Your task to perform on an android device: empty trash in google photos Image 0: 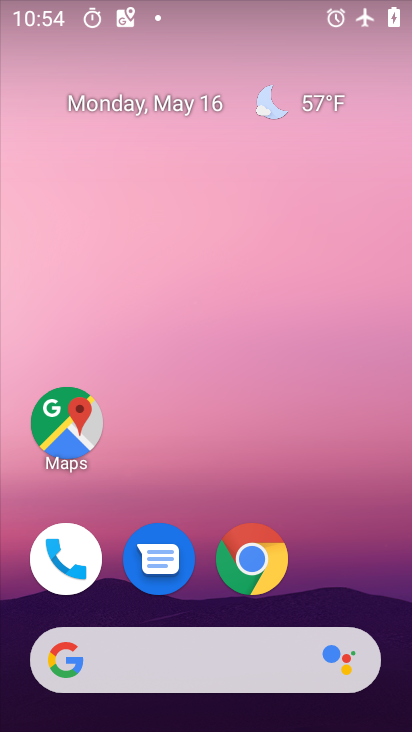
Step 0: drag from (325, 563) to (322, 143)
Your task to perform on an android device: empty trash in google photos Image 1: 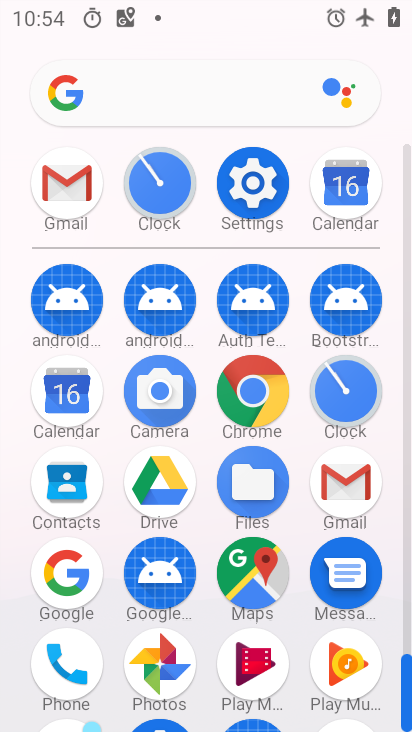
Step 1: click (166, 649)
Your task to perform on an android device: empty trash in google photos Image 2: 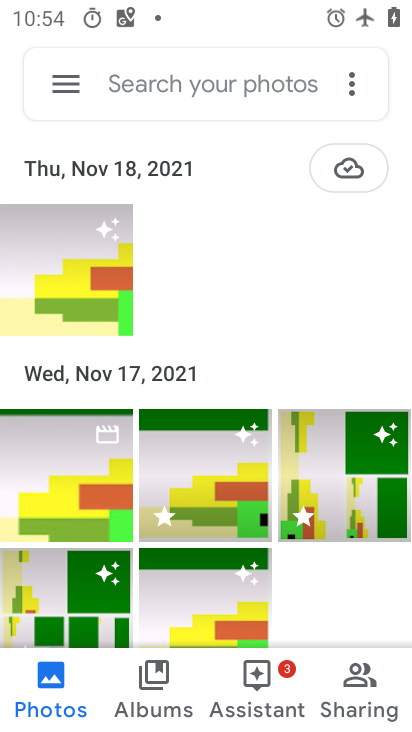
Step 2: click (75, 84)
Your task to perform on an android device: empty trash in google photos Image 3: 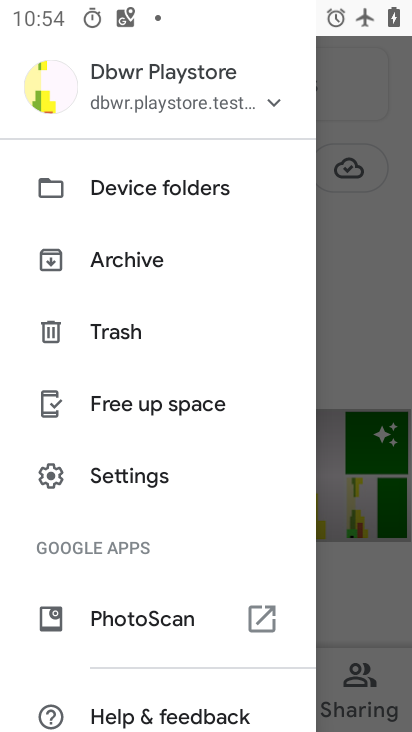
Step 3: click (127, 334)
Your task to perform on an android device: empty trash in google photos Image 4: 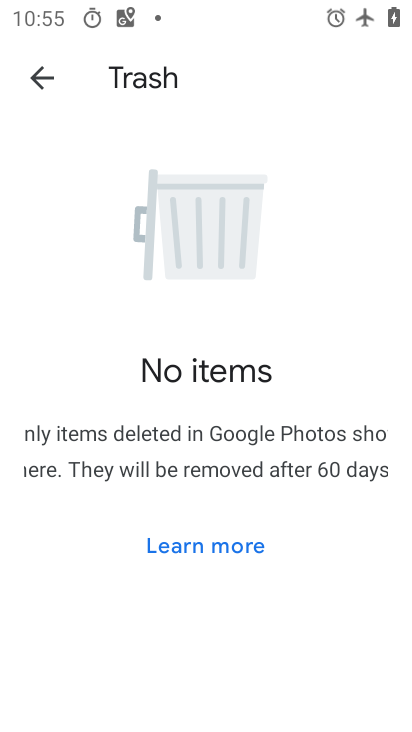
Step 4: task complete